Your task to perform on an android device: Set the phone to "Do not disturb". Image 0: 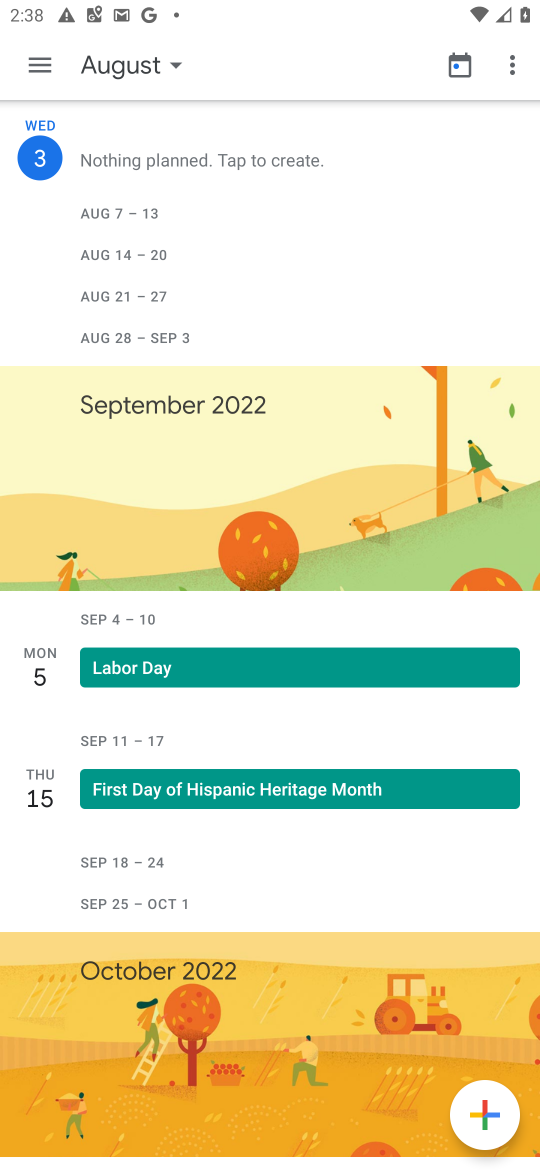
Step 0: press home button
Your task to perform on an android device: Set the phone to "Do not disturb". Image 1: 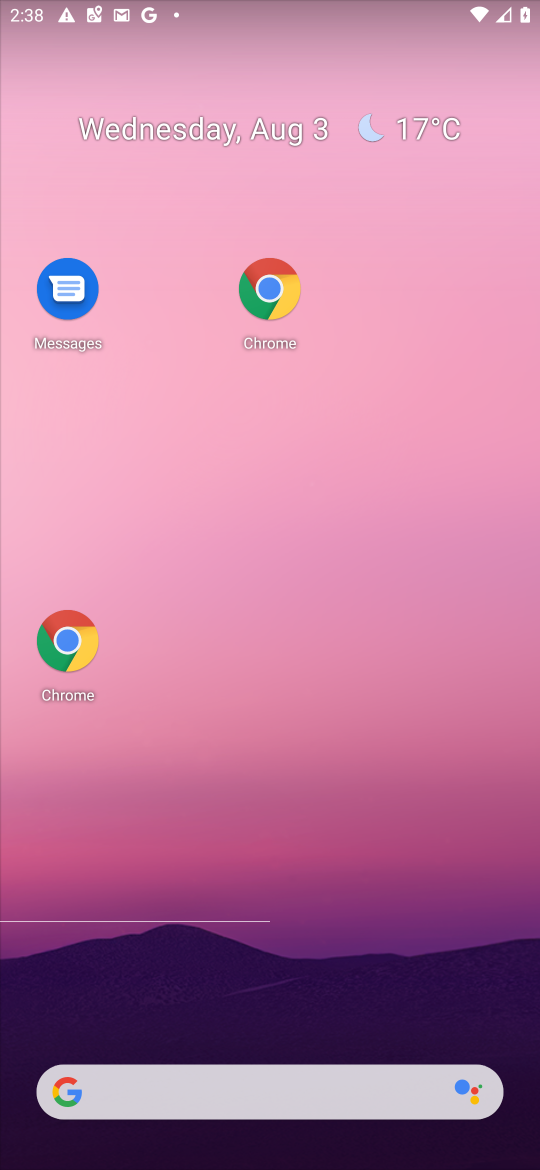
Step 1: drag from (309, 1008) to (333, 81)
Your task to perform on an android device: Set the phone to "Do not disturb". Image 2: 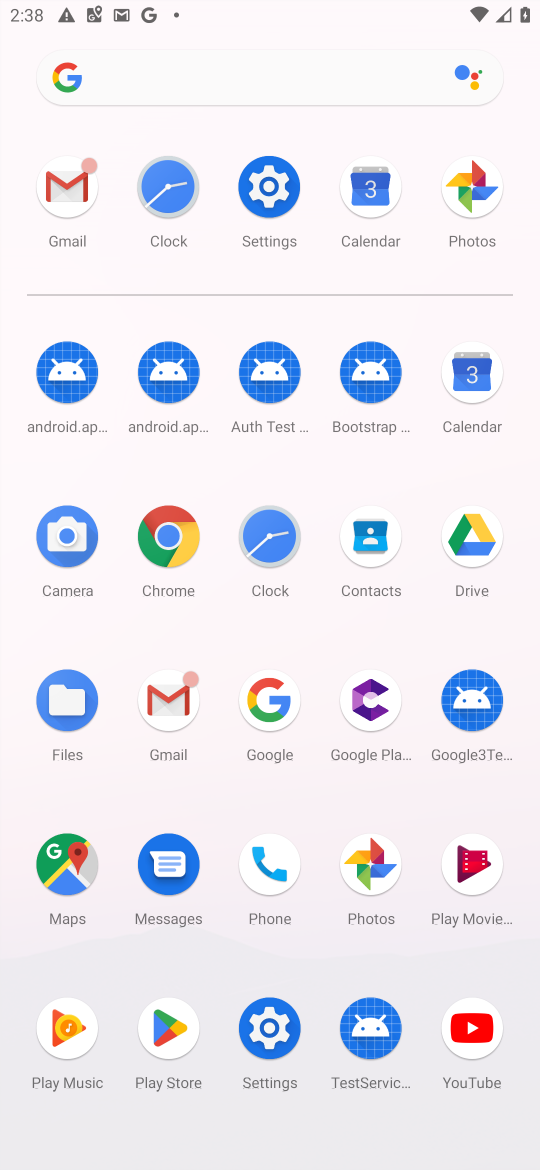
Step 2: click (282, 250)
Your task to perform on an android device: Set the phone to "Do not disturb". Image 3: 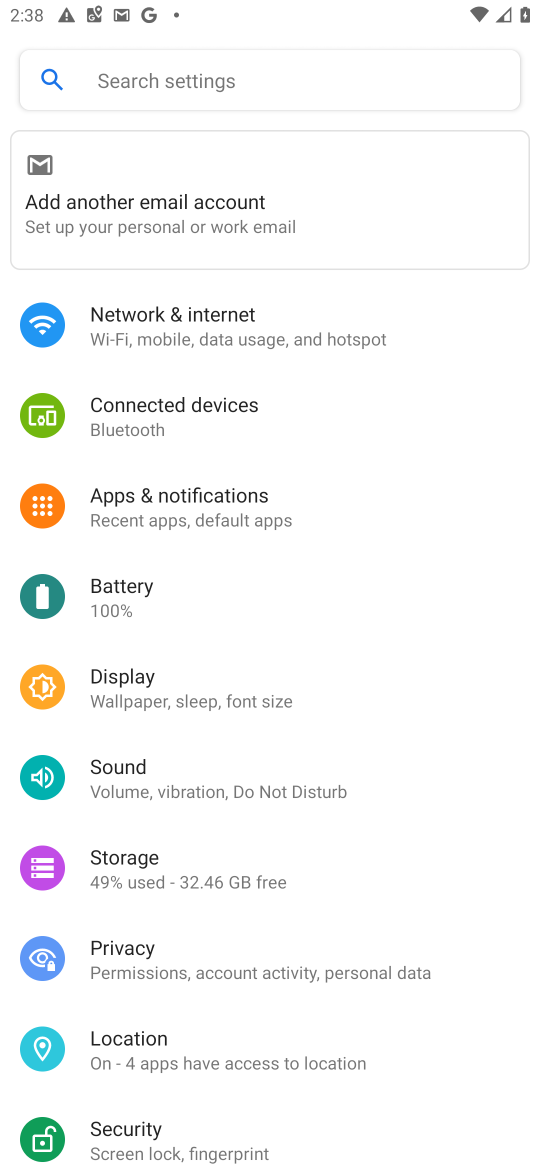
Step 3: click (301, 802)
Your task to perform on an android device: Set the phone to "Do not disturb". Image 4: 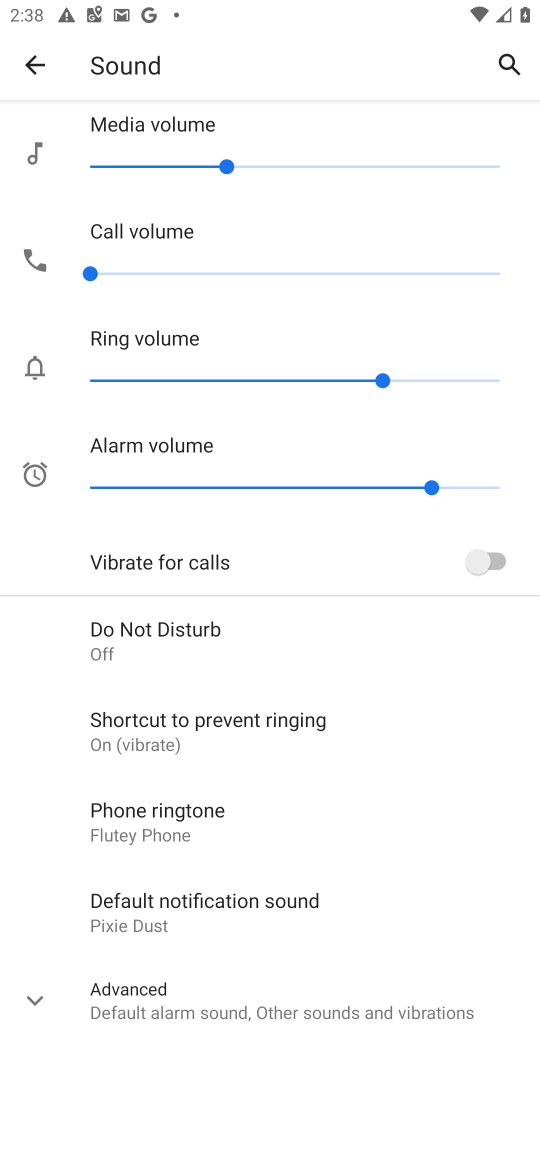
Step 4: click (409, 627)
Your task to perform on an android device: Set the phone to "Do not disturb". Image 5: 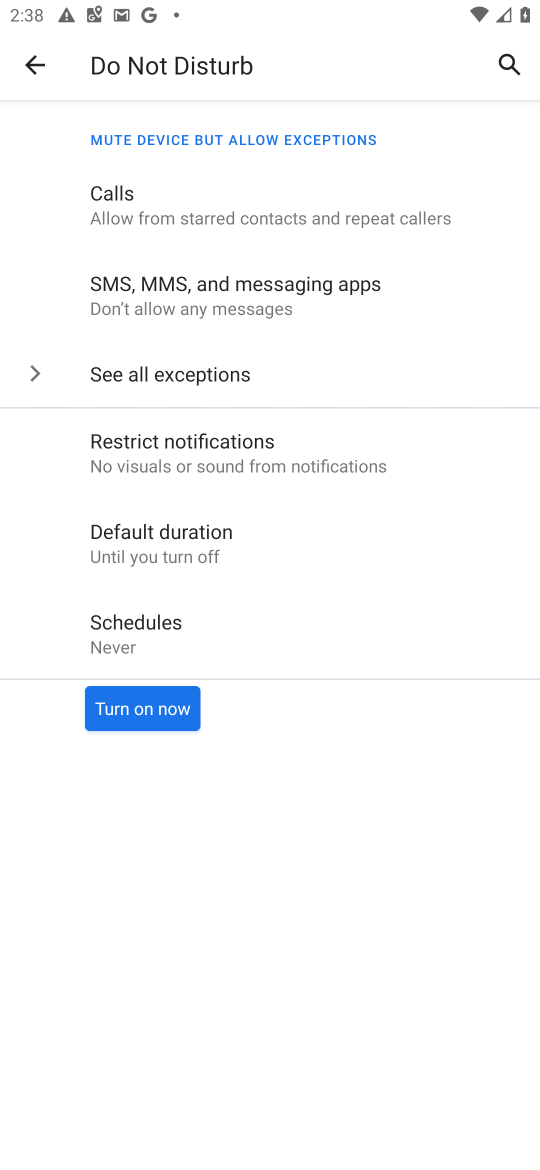
Step 5: click (172, 702)
Your task to perform on an android device: Set the phone to "Do not disturb". Image 6: 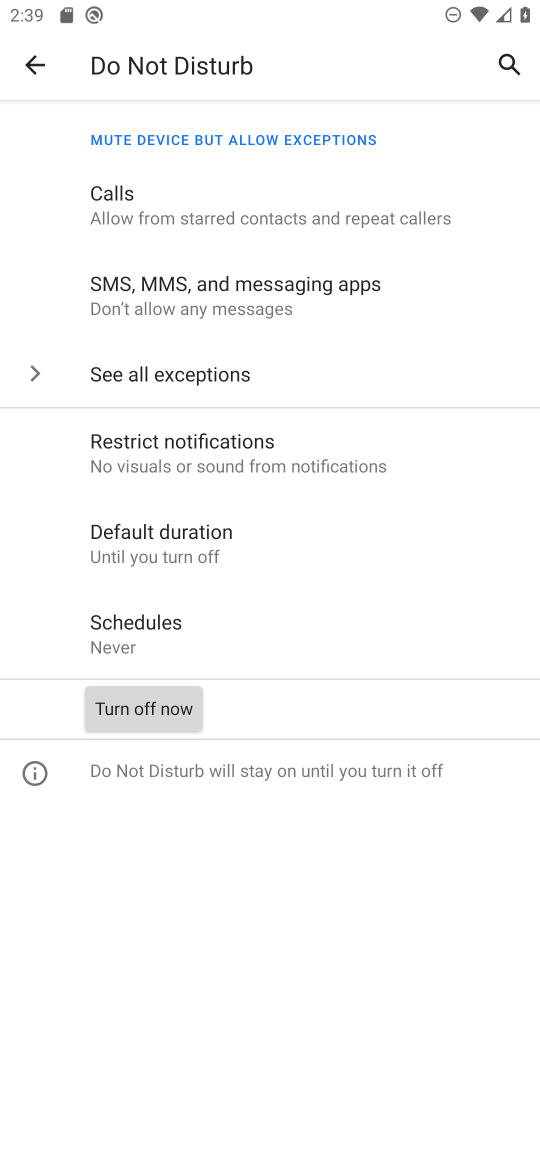
Step 6: task complete